Your task to perform on an android device: open the mobile data screen to see how much data has been used Image 0: 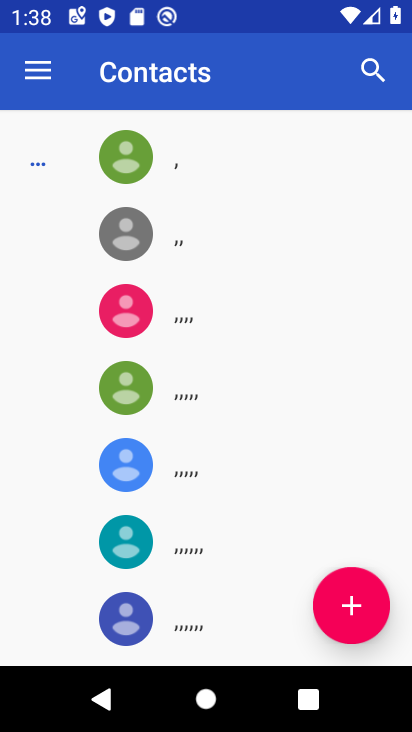
Step 0: press home button
Your task to perform on an android device: open the mobile data screen to see how much data has been used Image 1: 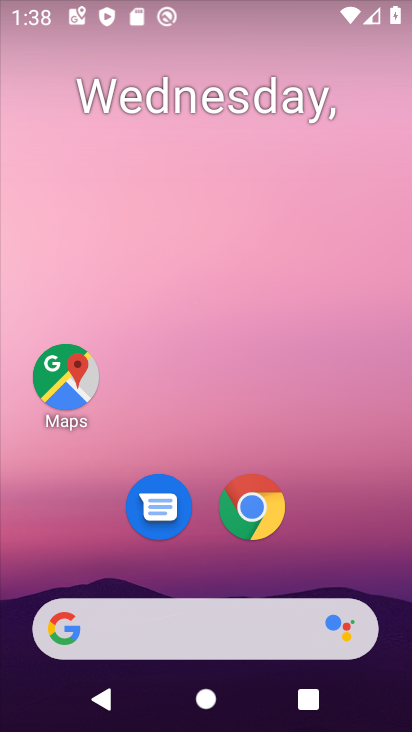
Step 1: drag from (364, 566) to (369, 169)
Your task to perform on an android device: open the mobile data screen to see how much data has been used Image 2: 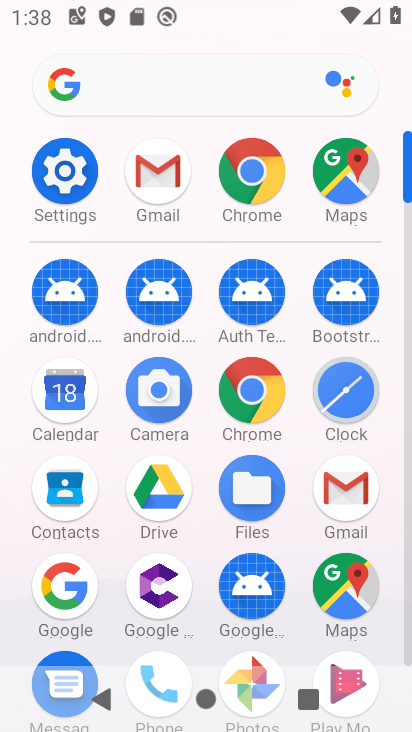
Step 2: click (54, 179)
Your task to perform on an android device: open the mobile data screen to see how much data has been used Image 3: 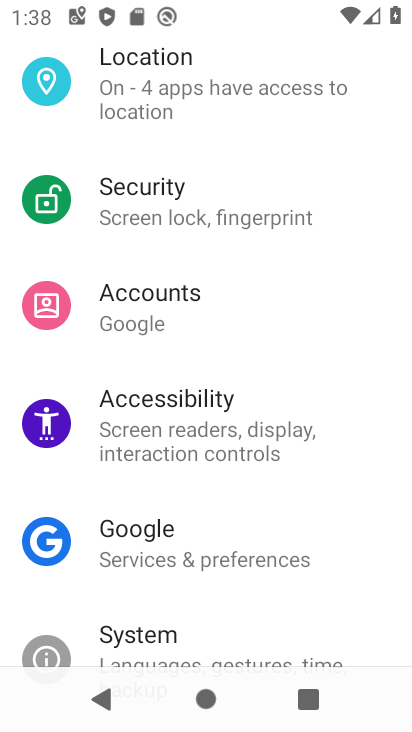
Step 3: drag from (278, 165) to (282, 651)
Your task to perform on an android device: open the mobile data screen to see how much data has been used Image 4: 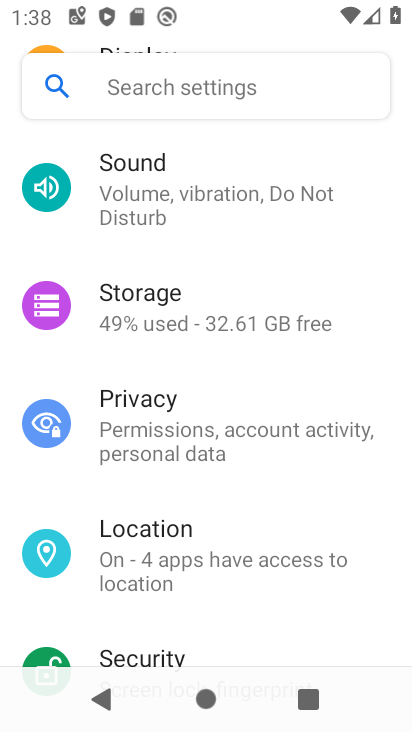
Step 4: drag from (273, 215) to (311, 687)
Your task to perform on an android device: open the mobile data screen to see how much data has been used Image 5: 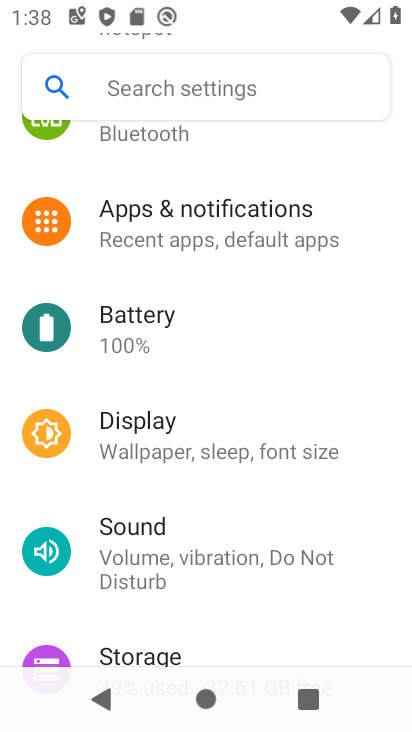
Step 5: drag from (224, 173) to (292, 668)
Your task to perform on an android device: open the mobile data screen to see how much data has been used Image 6: 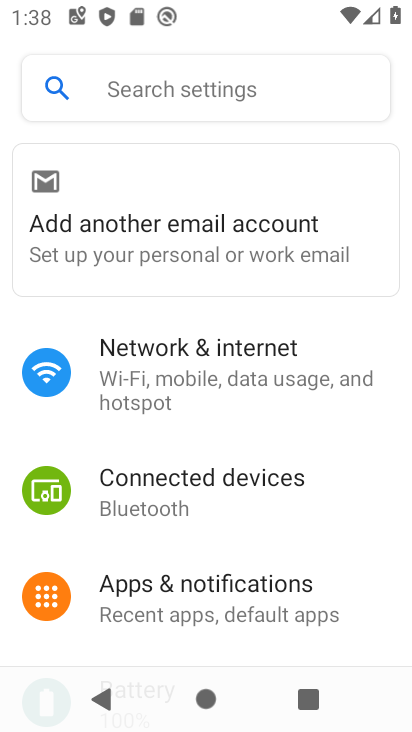
Step 6: click (199, 387)
Your task to perform on an android device: open the mobile data screen to see how much data has been used Image 7: 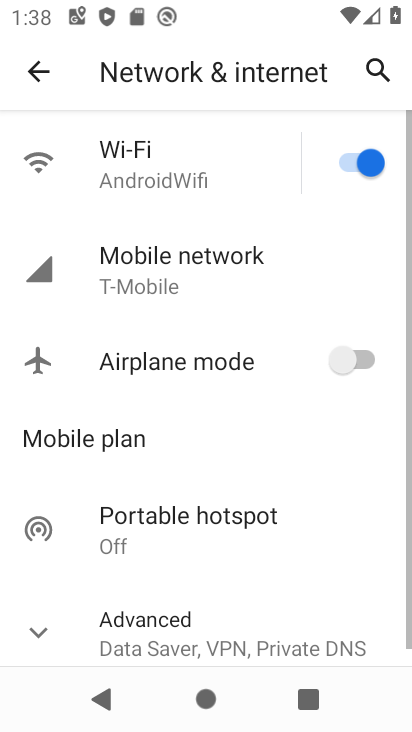
Step 7: click (190, 280)
Your task to perform on an android device: open the mobile data screen to see how much data has been used Image 8: 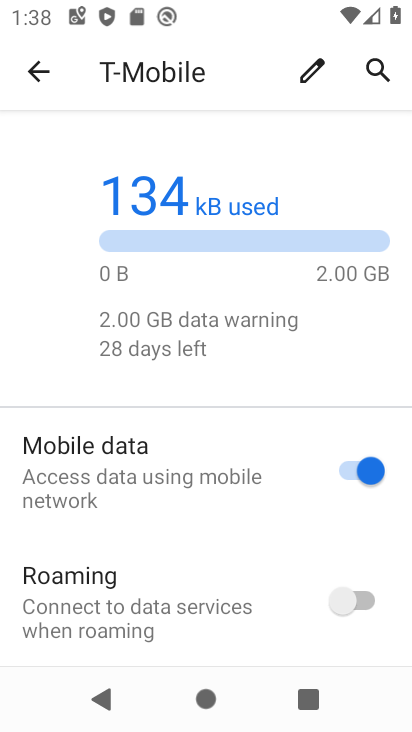
Step 8: task complete